Your task to perform on an android device: star an email in the gmail app Image 0: 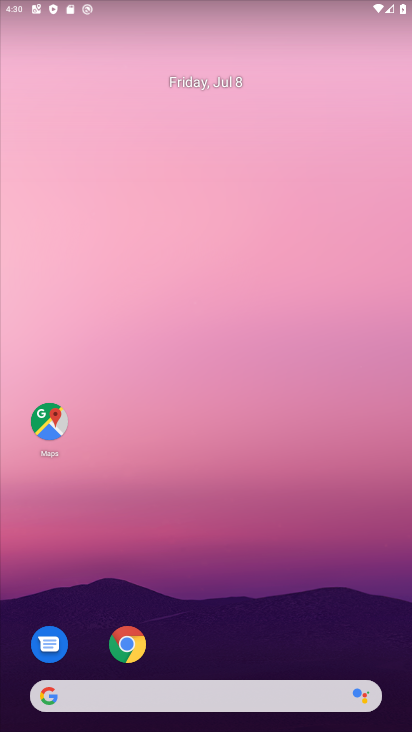
Step 0: press home button
Your task to perform on an android device: star an email in the gmail app Image 1: 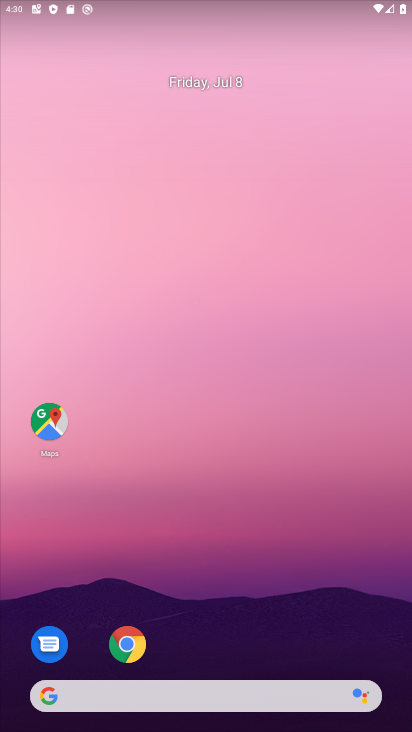
Step 1: drag from (216, 664) to (239, 11)
Your task to perform on an android device: star an email in the gmail app Image 2: 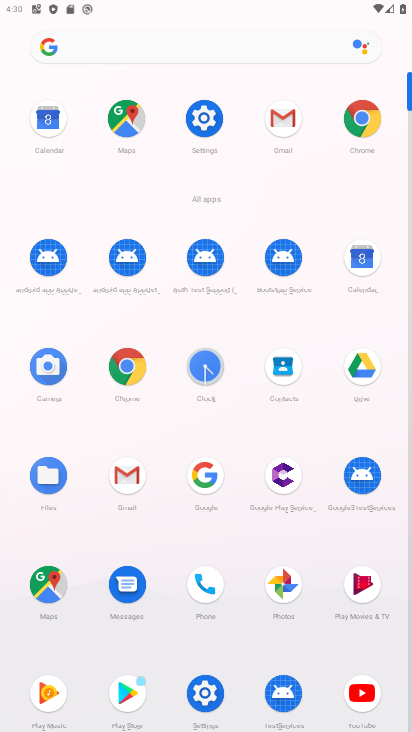
Step 2: click (280, 113)
Your task to perform on an android device: star an email in the gmail app Image 3: 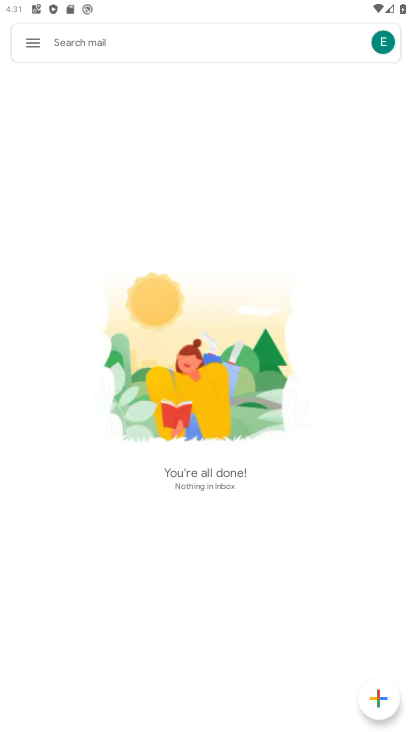
Step 3: task complete